Your task to perform on an android device: open app "Life360: Find Family & Friends" (install if not already installed) and enter user name: "gusts@gmail.com" and password: "assurers" Image 0: 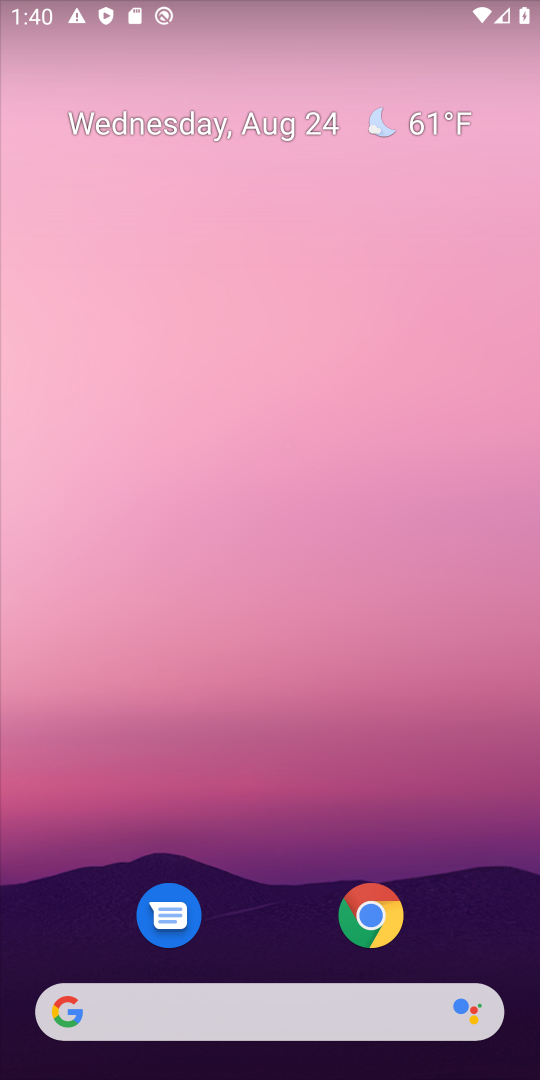
Step 0: drag from (254, 703) to (323, 64)
Your task to perform on an android device: open app "Life360: Find Family & Friends" (install if not already installed) and enter user name: "gusts@gmail.com" and password: "assurers" Image 1: 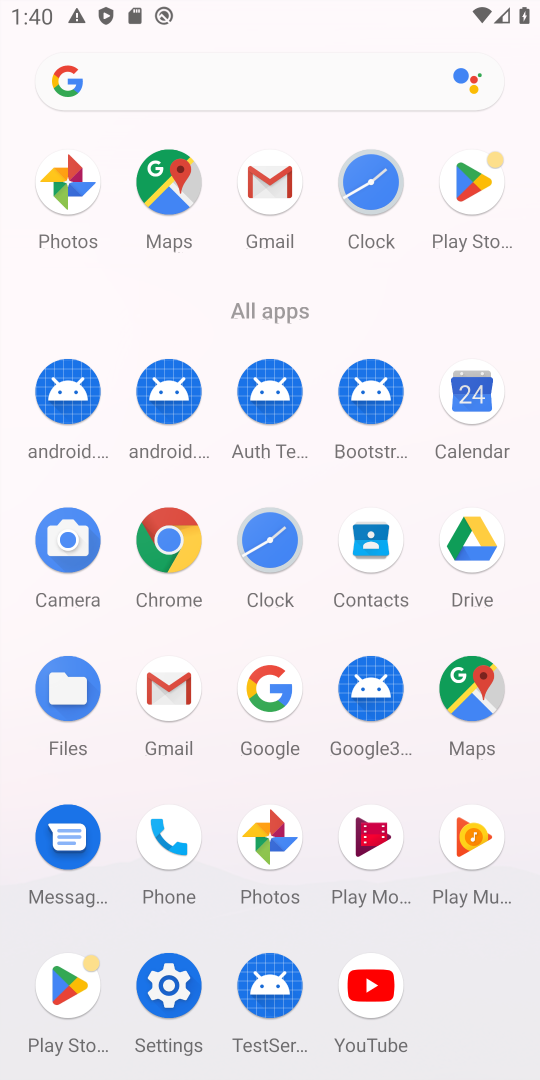
Step 1: click (459, 191)
Your task to perform on an android device: open app "Life360: Find Family & Friends" (install if not already installed) and enter user name: "gusts@gmail.com" and password: "assurers" Image 2: 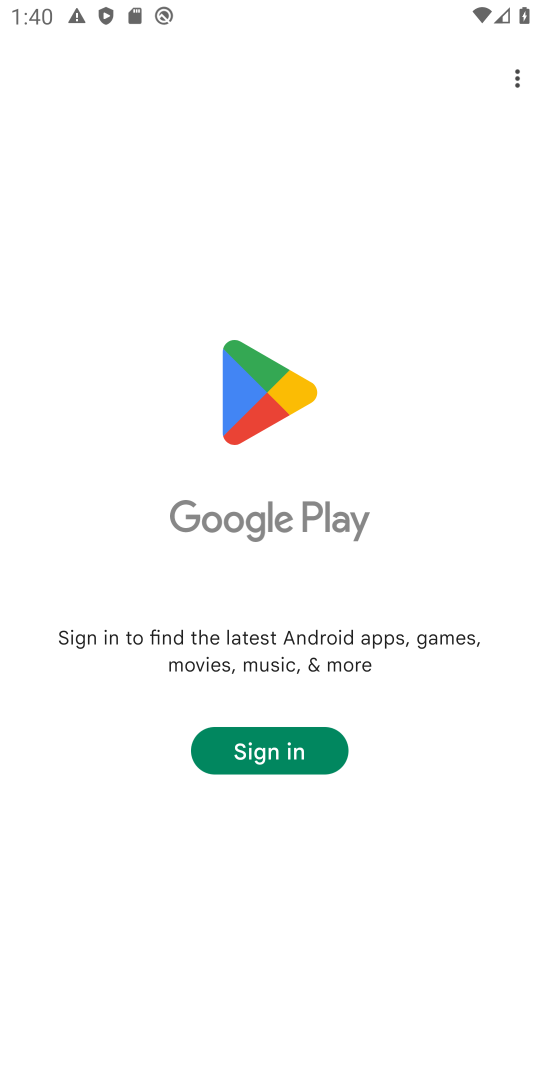
Step 2: task complete